Your task to perform on an android device: toggle data saver in the chrome app Image 0: 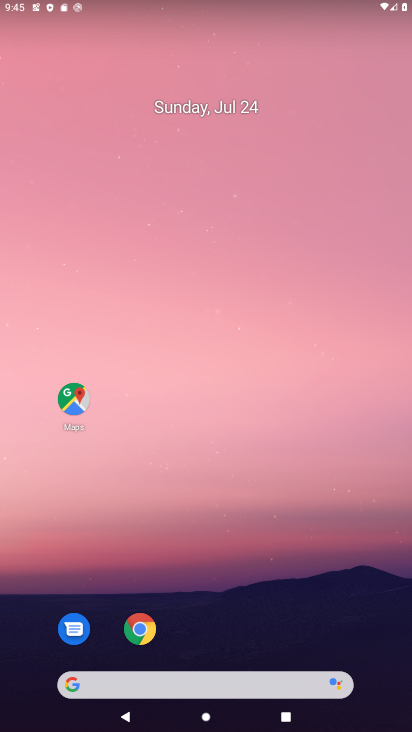
Step 0: click (139, 628)
Your task to perform on an android device: toggle data saver in the chrome app Image 1: 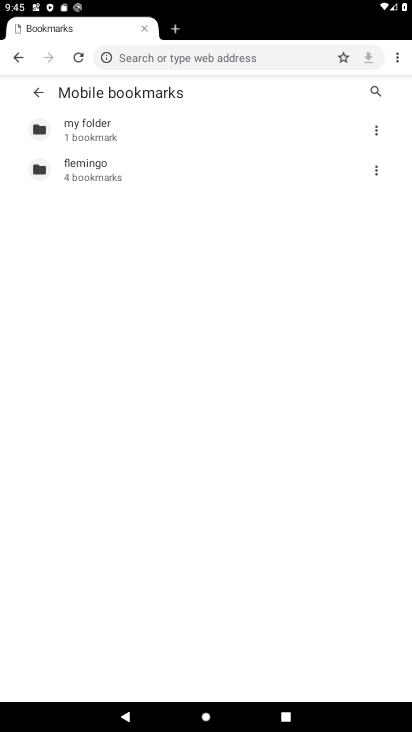
Step 1: click (402, 62)
Your task to perform on an android device: toggle data saver in the chrome app Image 2: 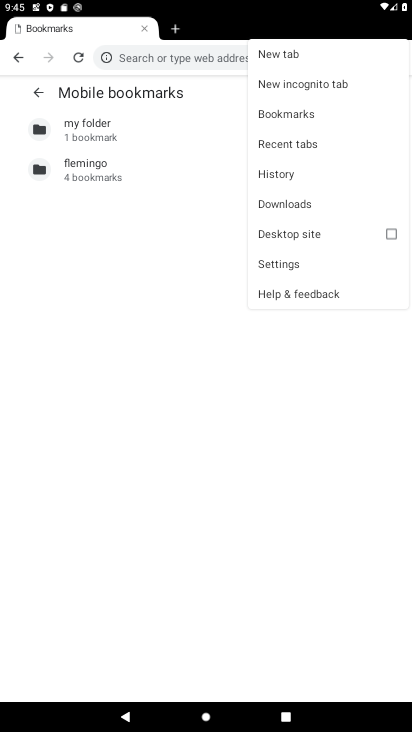
Step 2: click (310, 270)
Your task to perform on an android device: toggle data saver in the chrome app Image 3: 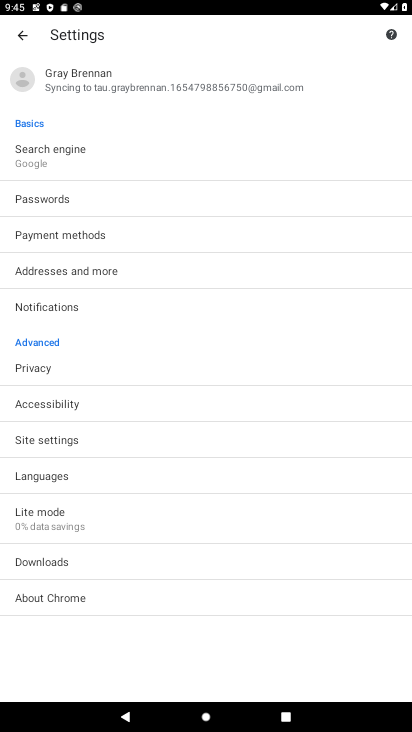
Step 3: click (98, 498)
Your task to perform on an android device: toggle data saver in the chrome app Image 4: 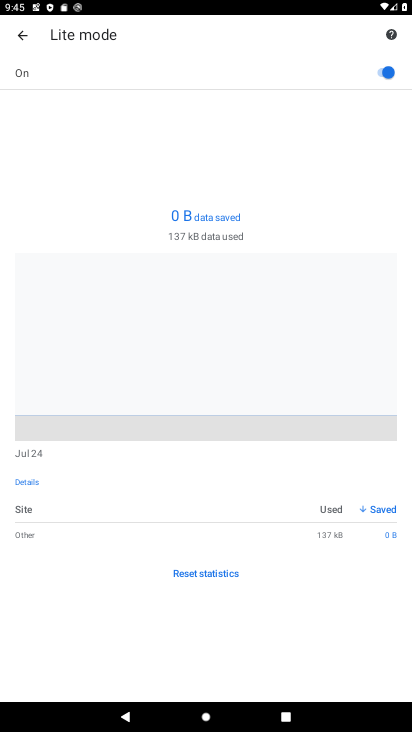
Step 4: click (374, 71)
Your task to perform on an android device: toggle data saver in the chrome app Image 5: 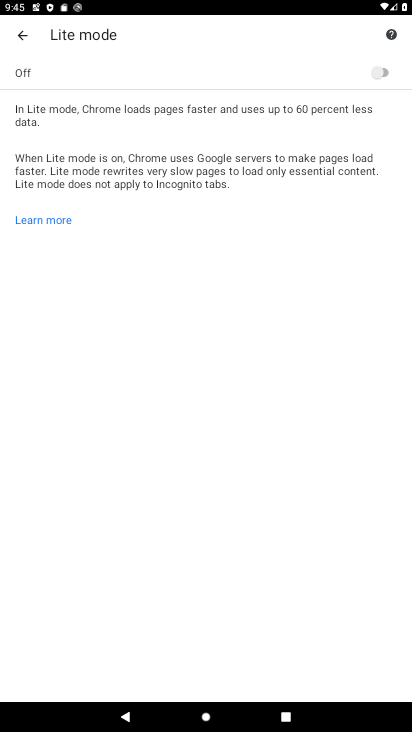
Step 5: task complete